Your task to perform on an android device: Go to Yahoo.com Image 0: 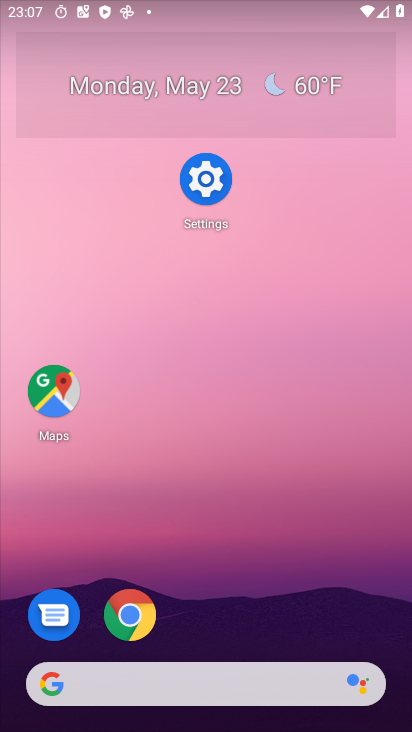
Step 0: click (122, 612)
Your task to perform on an android device: Go to Yahoo.com Image 1: 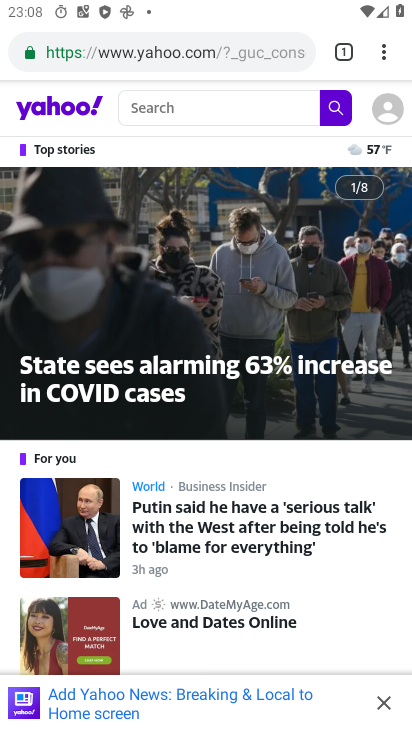
Step 1: task complete